Your task to perform on an android device: turn off picture-in-picture Image 0: 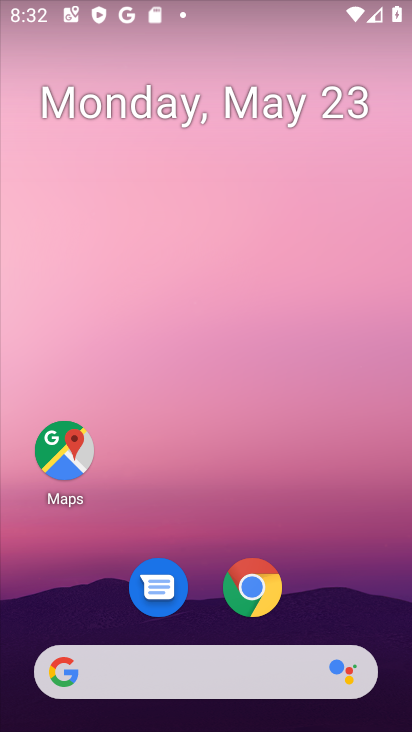
Step 0: drag from (195, 624) to (280, 143)
Your task to perform on an android device: turn off picture-in-picture Image 1: 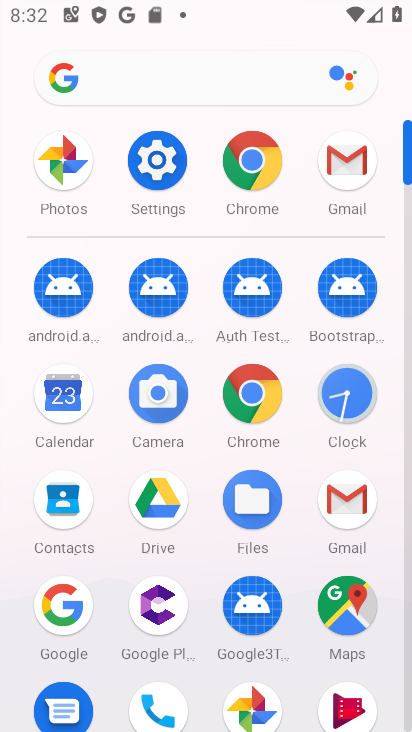
Step 1: click (154, 156)
Your task to perform on an android device: turn off picture-in-picture Image 2: 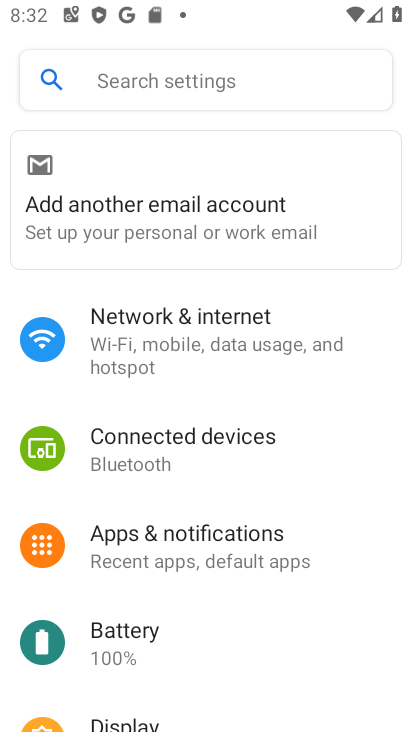
Step 2: click (199, 567)
Your task to perform on an android device: turn off picture-in-picture Image 3: 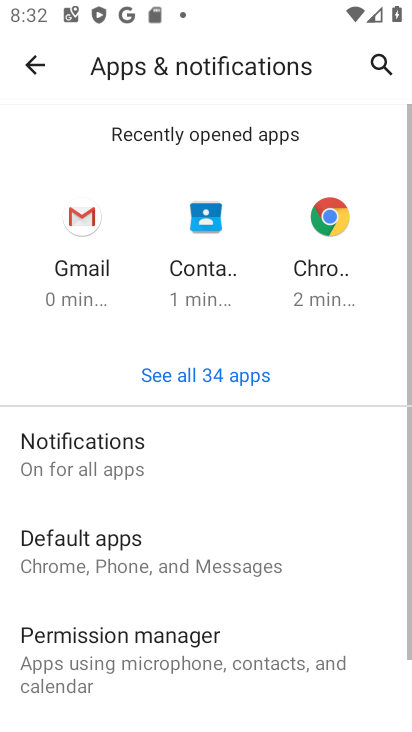
Step 3: drag from (163, 679) to (247, 147)
Your task to perform on an android device: turn off picture-in-picture Image 4: 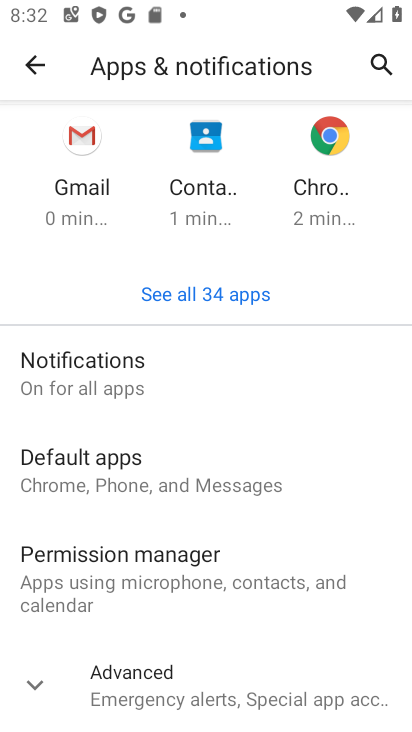
Step 4: click (201, 697)
Your task to perform on an android device: turn off picture-in-picture Image 5: 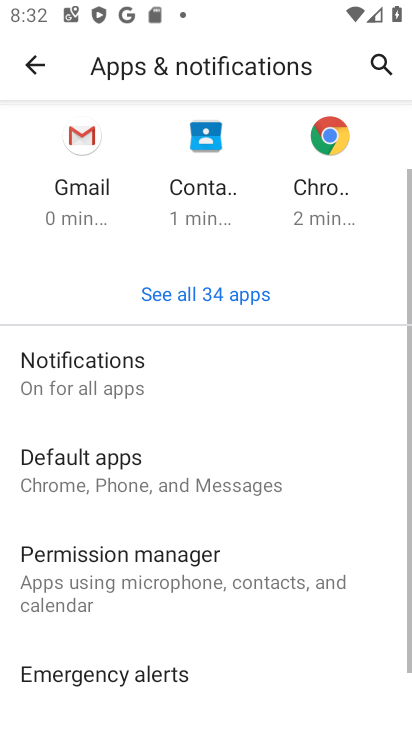
Step 5: drag from (176, 638) to (255, 181)
Your task to perform on an android device: turn off picture-in-picture Image 6: 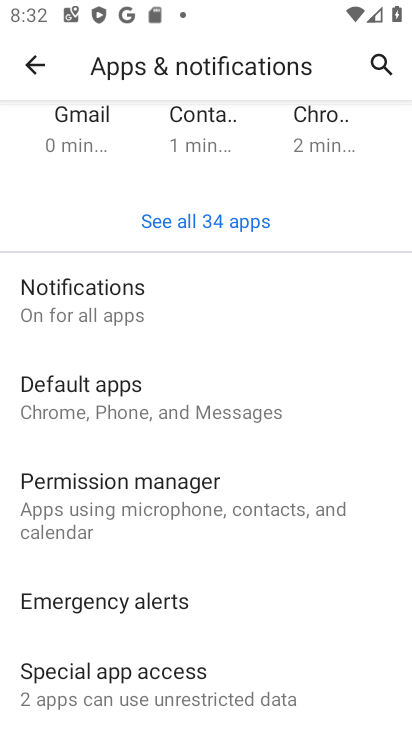
Step 6: click (155, 690)
Your task to perform on an android device: turn off picture-in-picture Image 7: 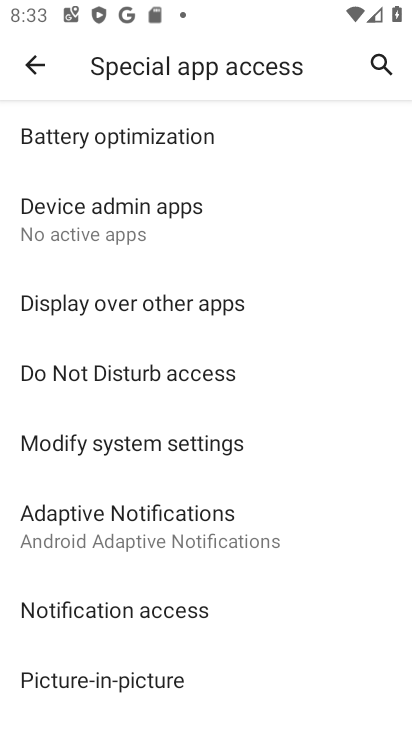
Step 7: click (130, 679)
Your task to perform on an android device: turn off picture-in-picture Image 8: 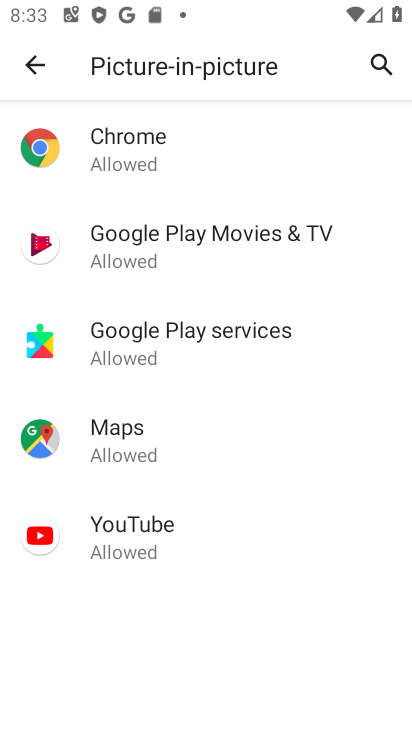
Step 8: click (141, 171)
Your task to perform on an android device: turn off picture-in-picture Image 9: 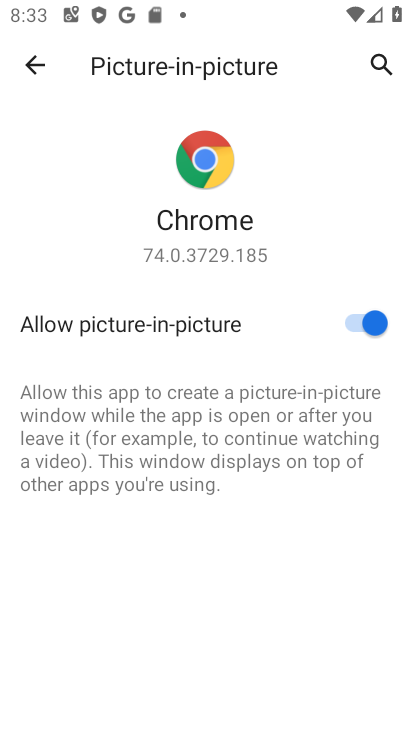
Step 9: click (376, 331)
Your task to perform on an android device: turn off picture-in-picture Image 10: 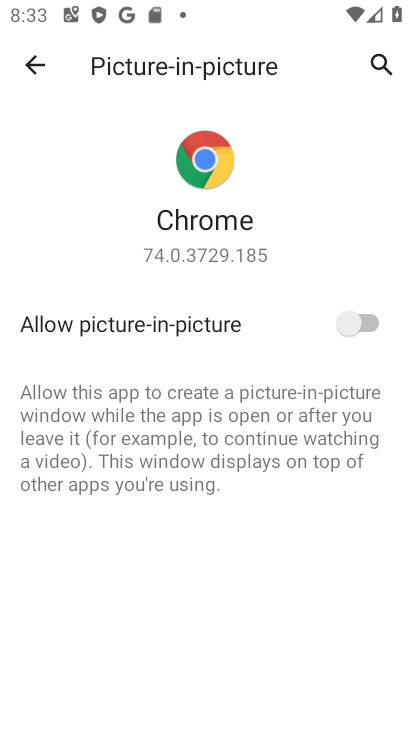
Step 10: task complete